Your task to perform on an android device: Go to Maps Image 0: 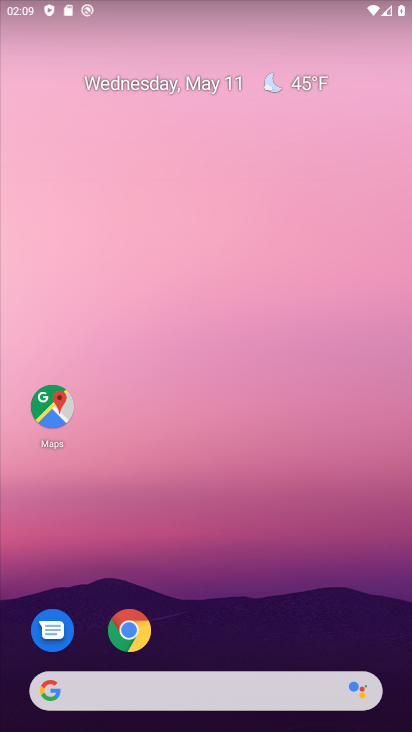
Step 0: drag from (199, 726) to (197, 42)
Your task to perform on an android device: Go to Maps Image 1: 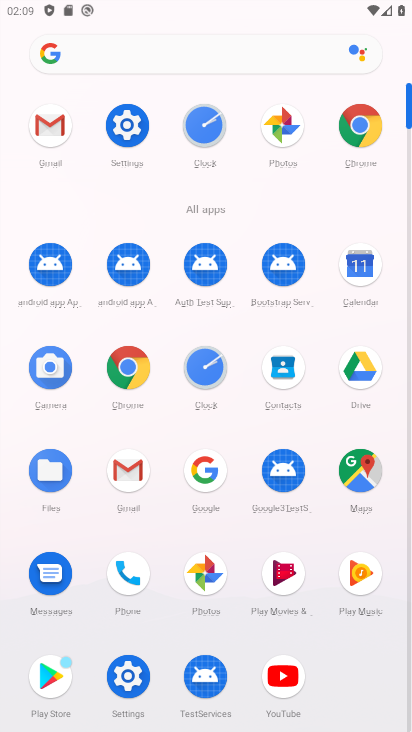
Step 1: click (358, 461)
Your task to perform on an android device: Go to Maps Image 2: 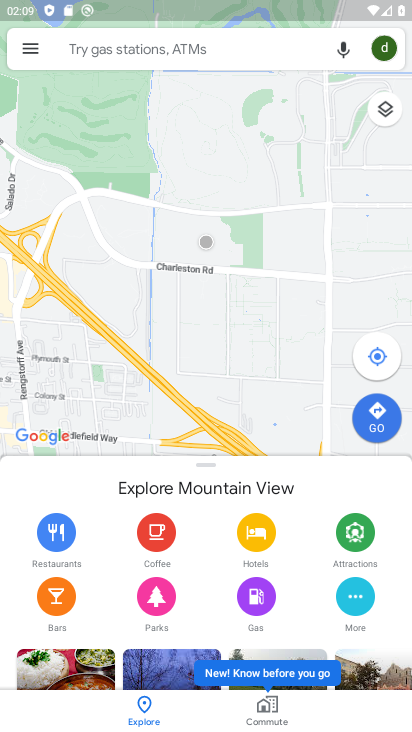
Step 2: task complete